Your task to perform on an android device: Do I have any events today? Image 0: 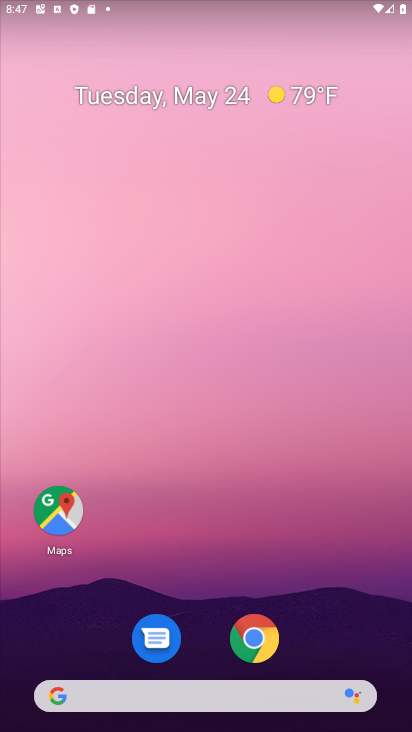
Step 0: drag from (171, 657) to (206, 251)
Your task to perform on an android device: Do I have any events today? Image 1: 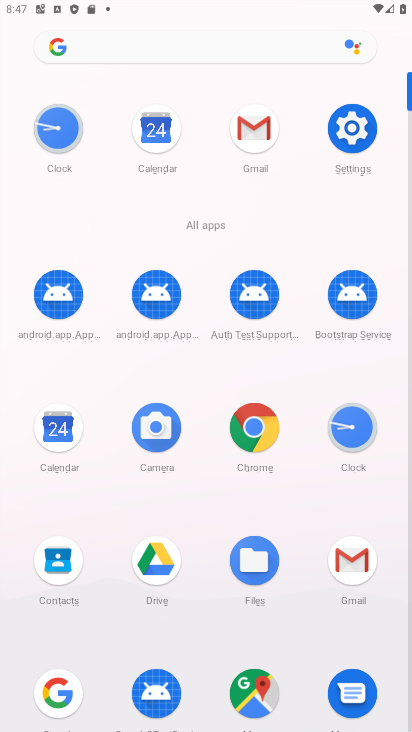
Step 1: click (55, 430)
Your task to perform on an android device: Do I have any events today? Image 2: 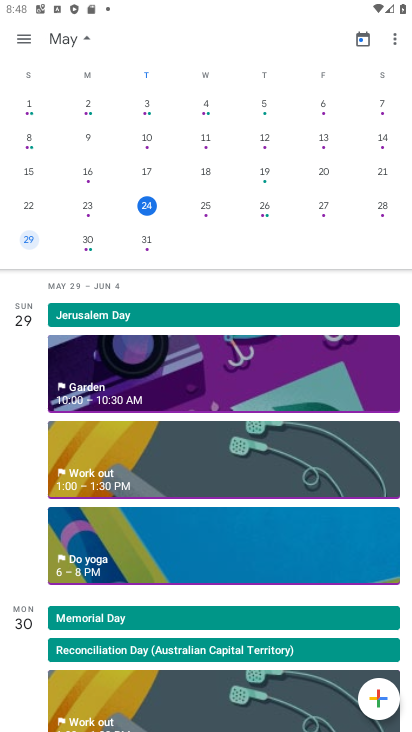
Step 2: click (146, 205)
Your task to perform on an android device: Do I have any events today? Image 3: 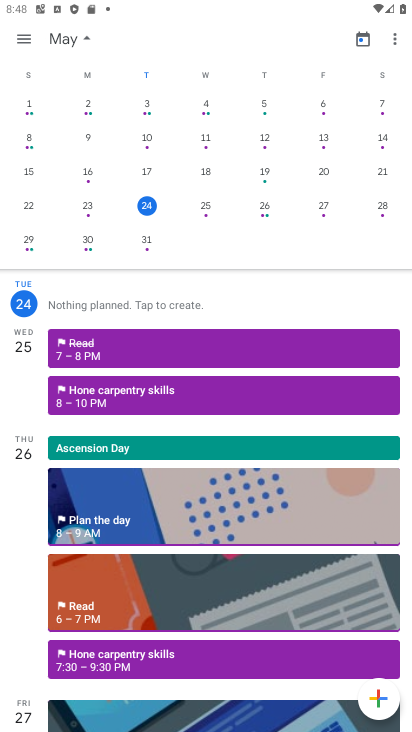
Step 3: task complete